Your task to perform on an android device: turn notification dots off Image 0: 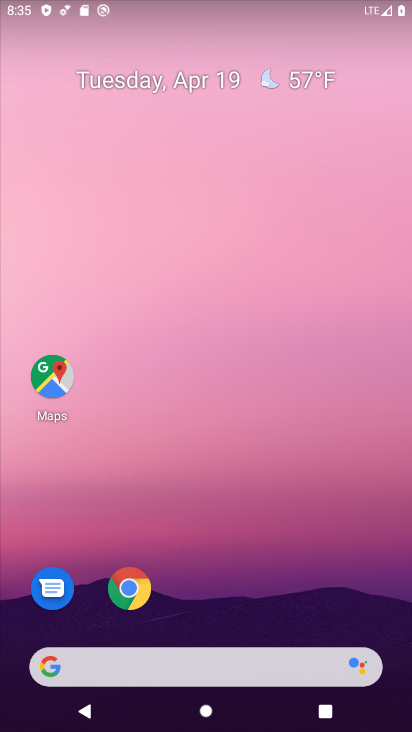
Step 0: drag from (260, 599) to (327, 19)
Your task to perform on an android device: turn notification dots off Image 1: 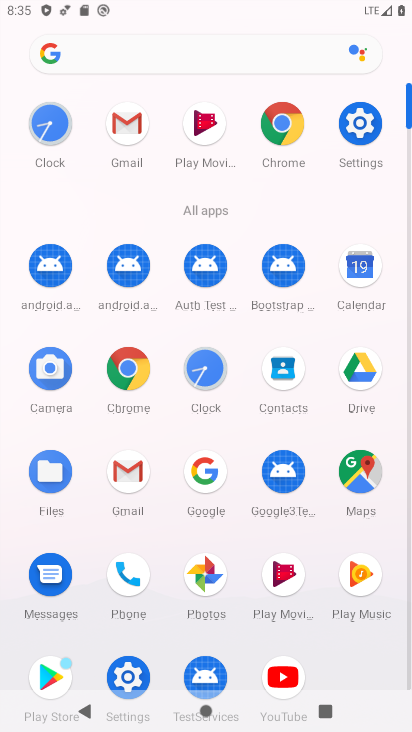
Step 1: click (348, 129)
Your task to perform on an android device: turn notification dots off Image 2: 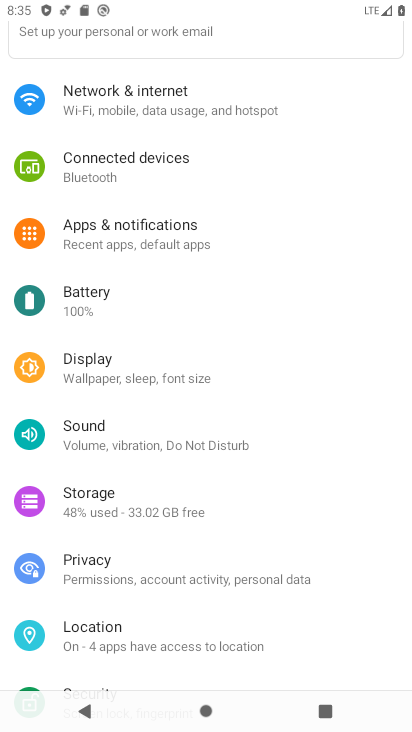
Step 2: click (150, 229)
Your task to perform on an android device: turn notification dots off Image 3: 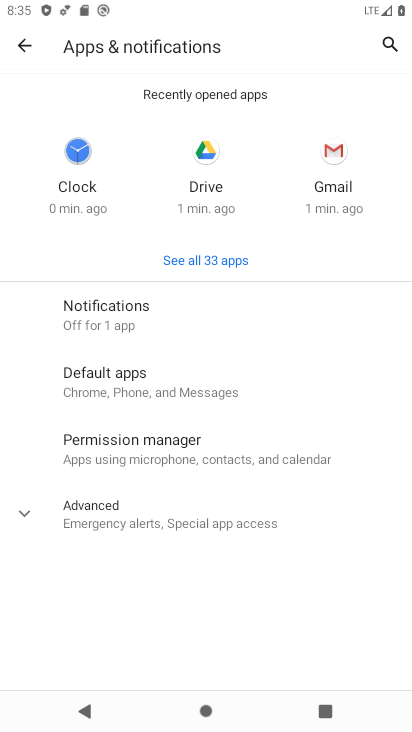
Step 3: click (117, 306)
Your task to perform on an android device: turn notification dots off Image 4: 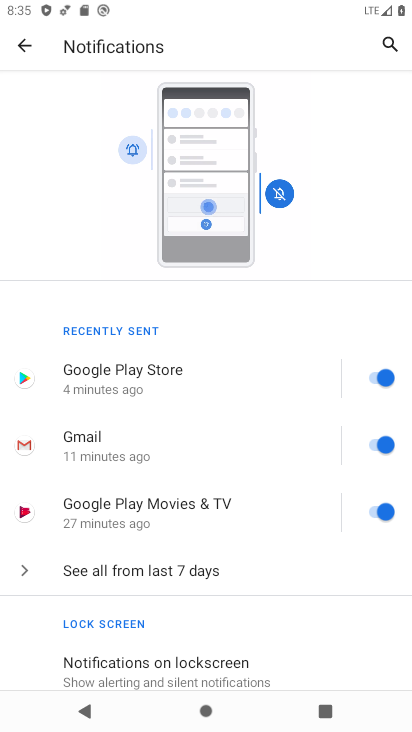
Step 4: drag from (178, 602) to (236, 193)
Your task to perform on an android device: turn notification dots off Image 5: 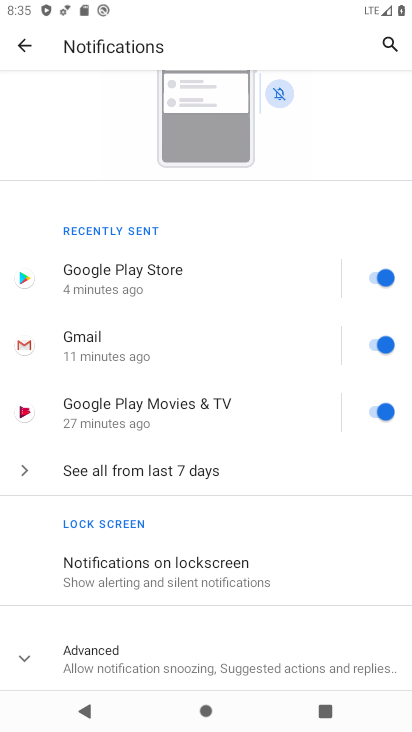
Step 5: click (192, 661)
Your task to perform on an android device: turn notification dots off Image 6: 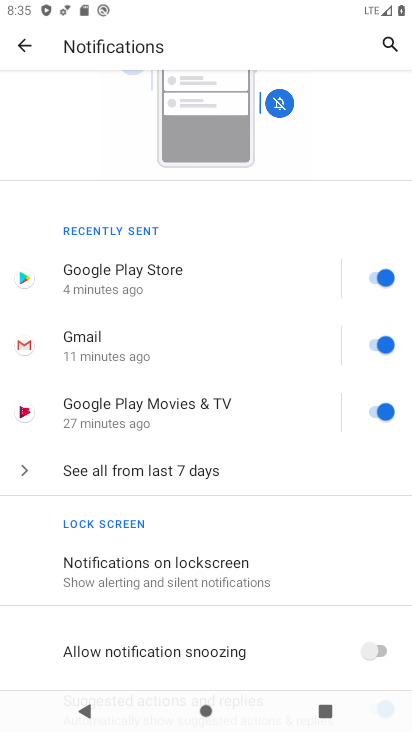
Step 6: drag from (178, 595) to (200, 322)
Your task to perform on an android device: turn notification dots off Image 7: 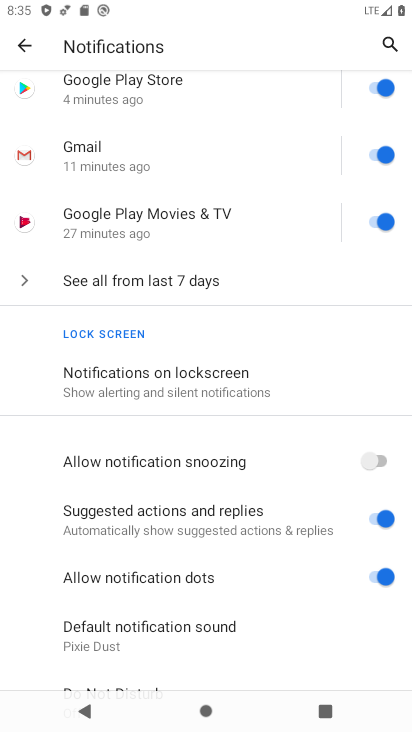
Step 7: click (369, 575)
Your task to perform on an android device: turn notification dots off Image 8: 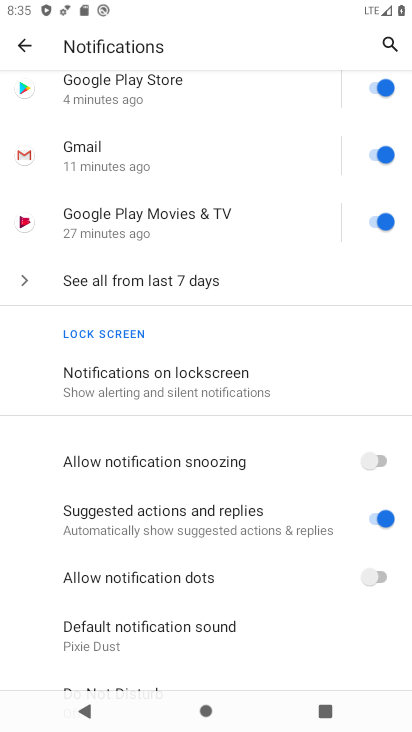
Step 8: task complete